Your task to perform on an android device: change timer sound Image 0: 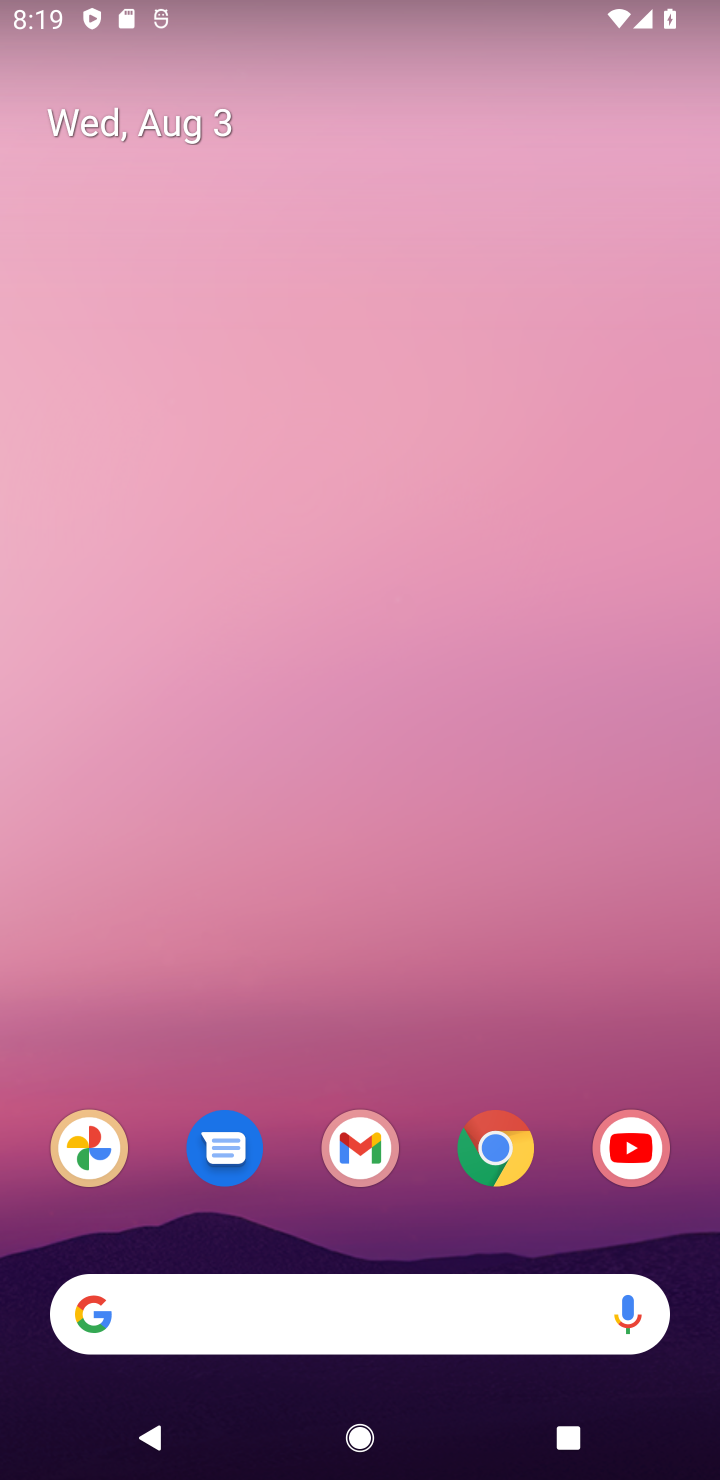
Step 0: drag from (416, 1006) to (497, 135)
Your task to perform on an android device: change timer sound Image 1: 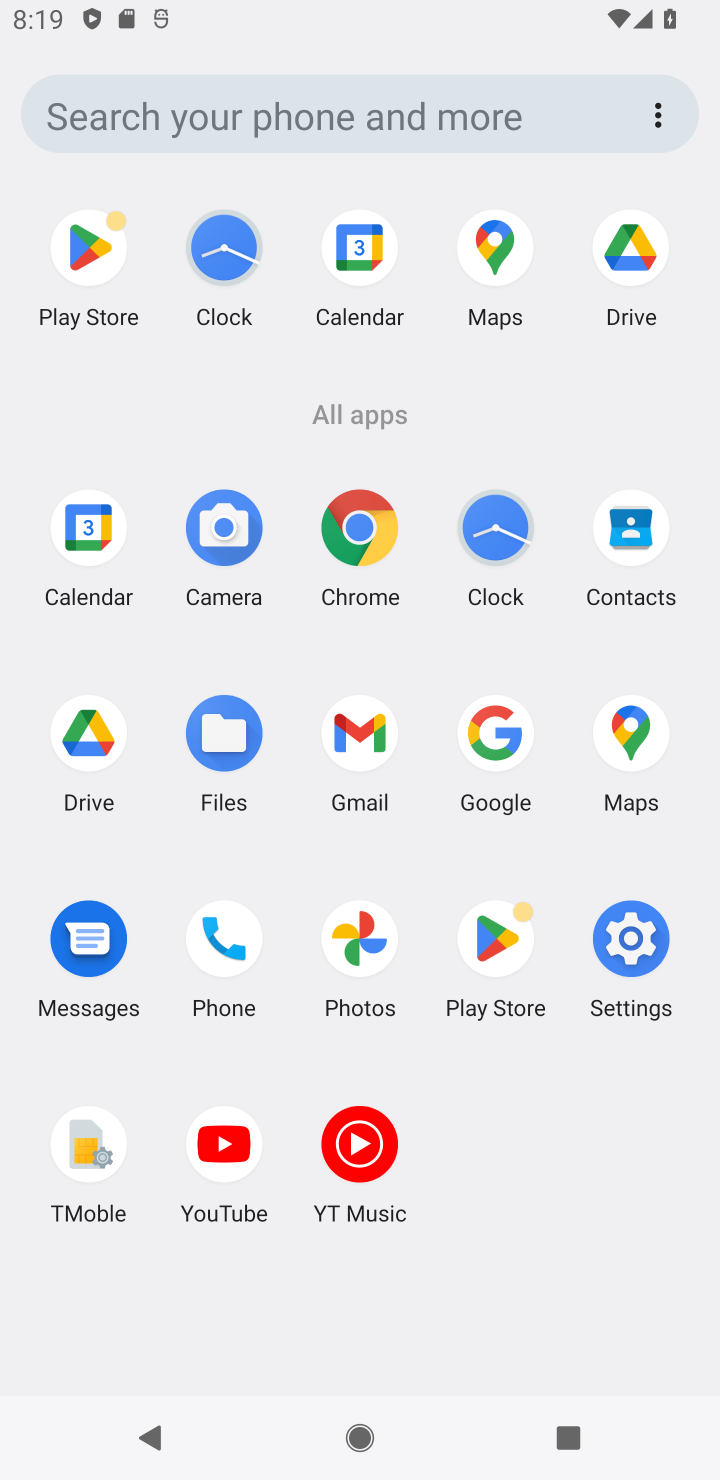
Step 1: click (212, 263)
Your task to perform on an android device: change timer sound Image 2: 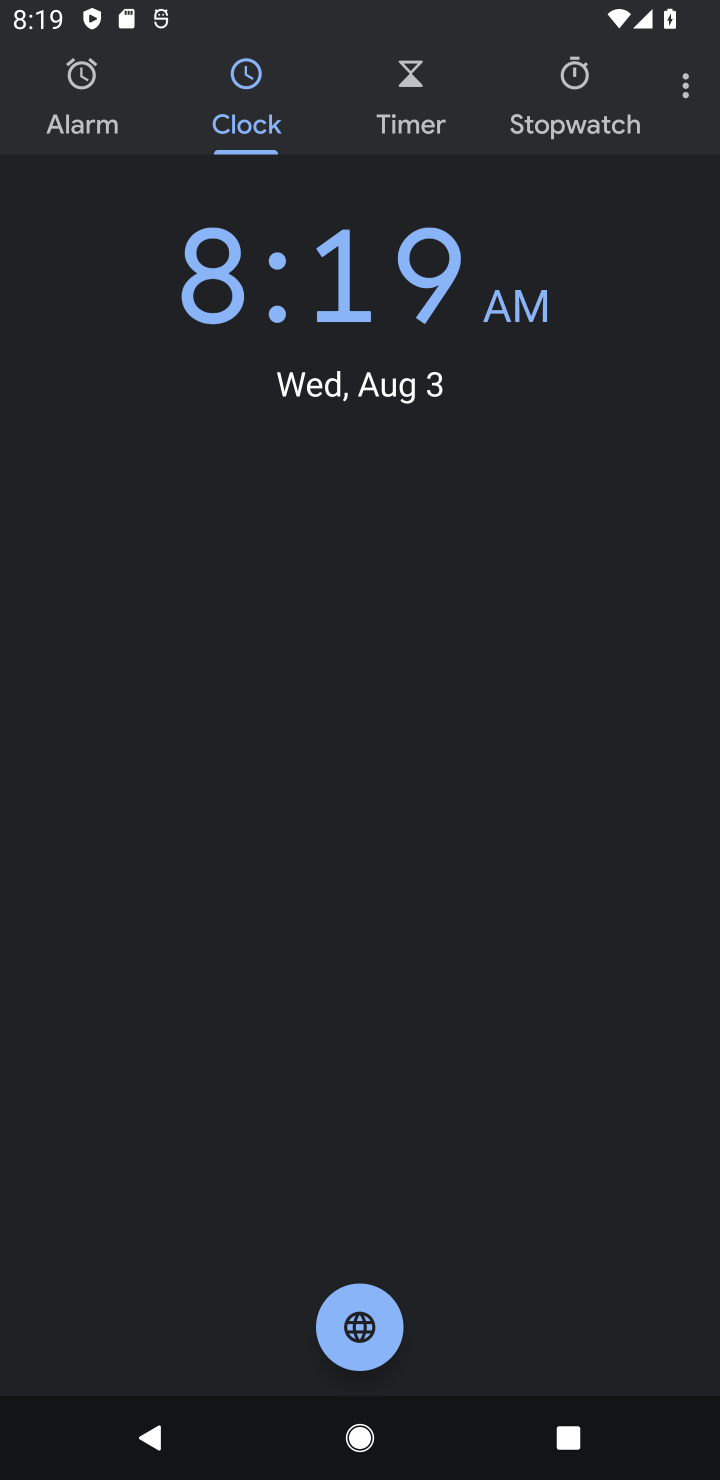
Step 2: click (424, 71)
Your task to perform on an android device: change timer sound Image 3: 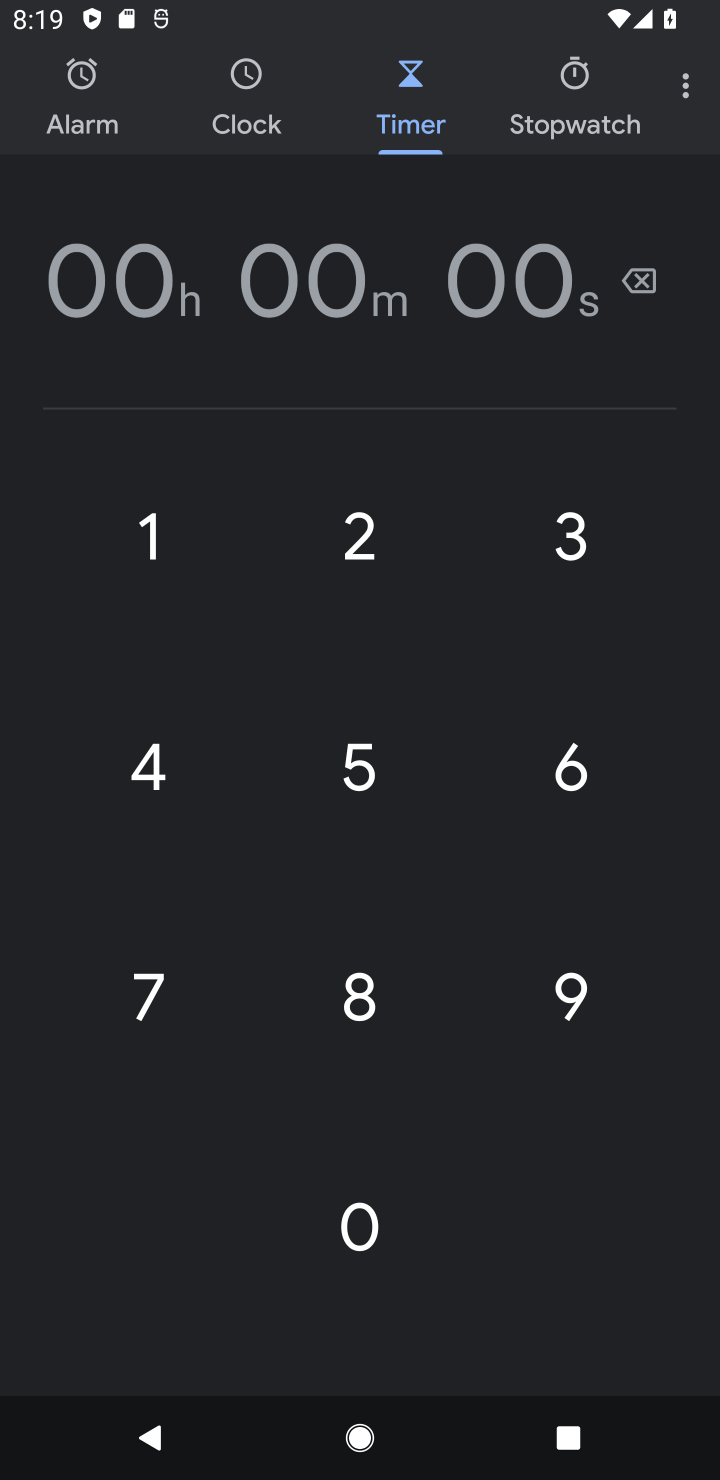
Step 3: click (688, 91)
Your task to perform on an android device: change timer sound Image 4: 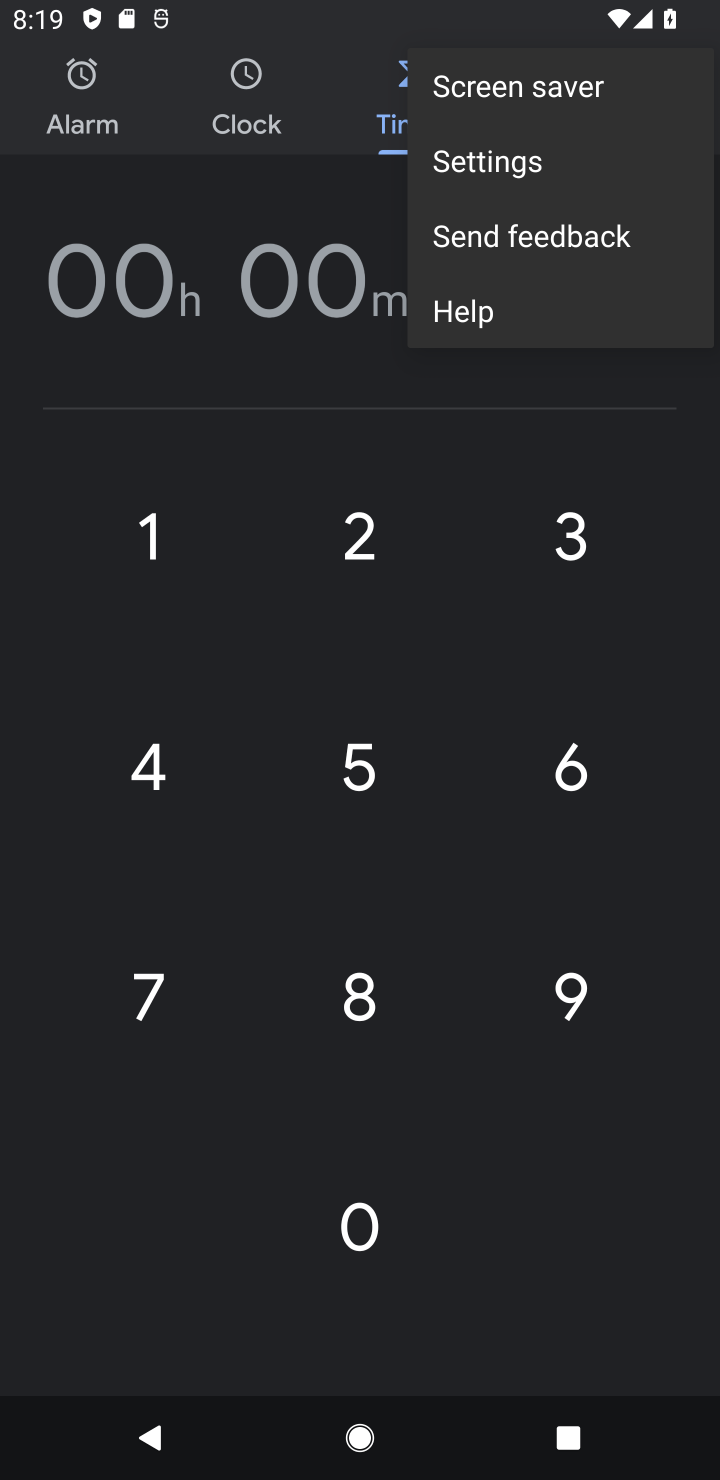
Step 4: click (559, 175)
Your task to perform on an android device: change timer sound Image 5: 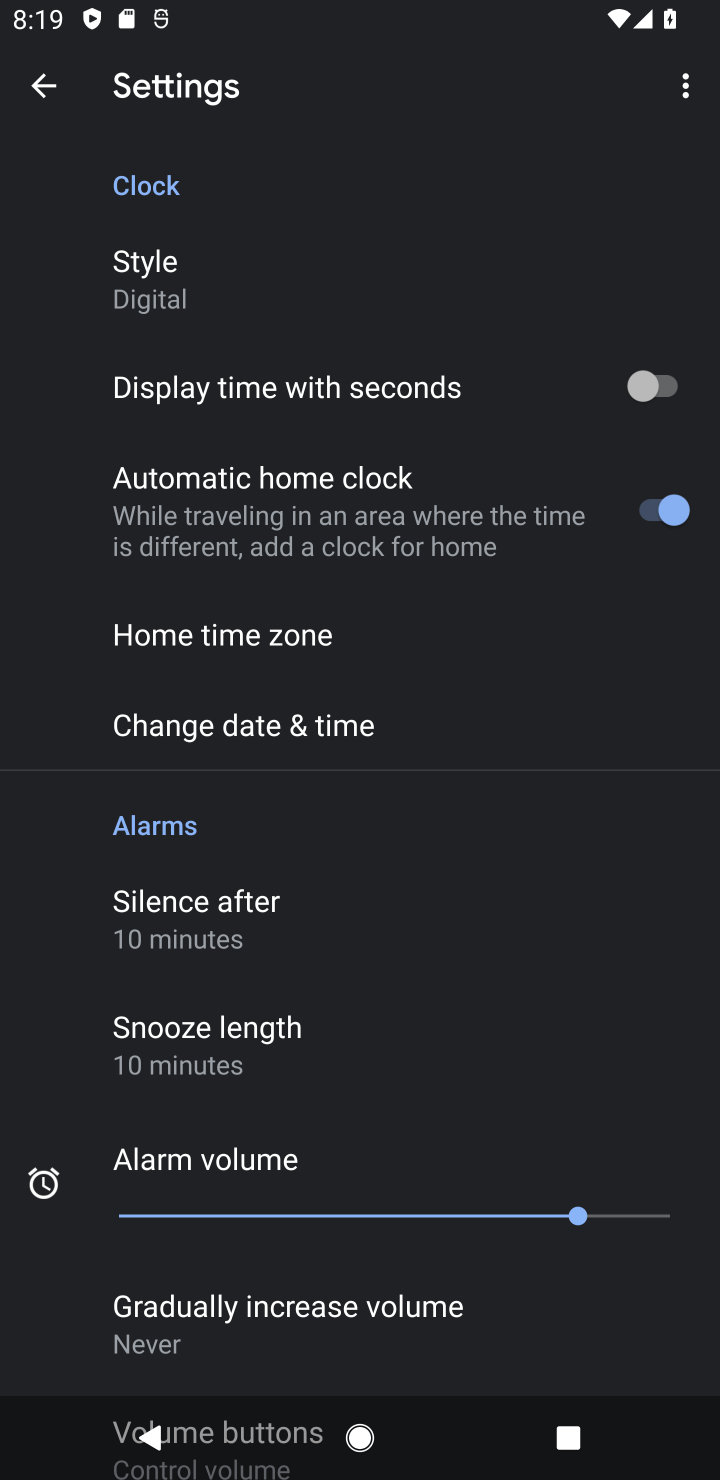
Step 5: drag from (355, 1023) to (439, 624)
Your task to perform on an android device: change timer sound Image 6: 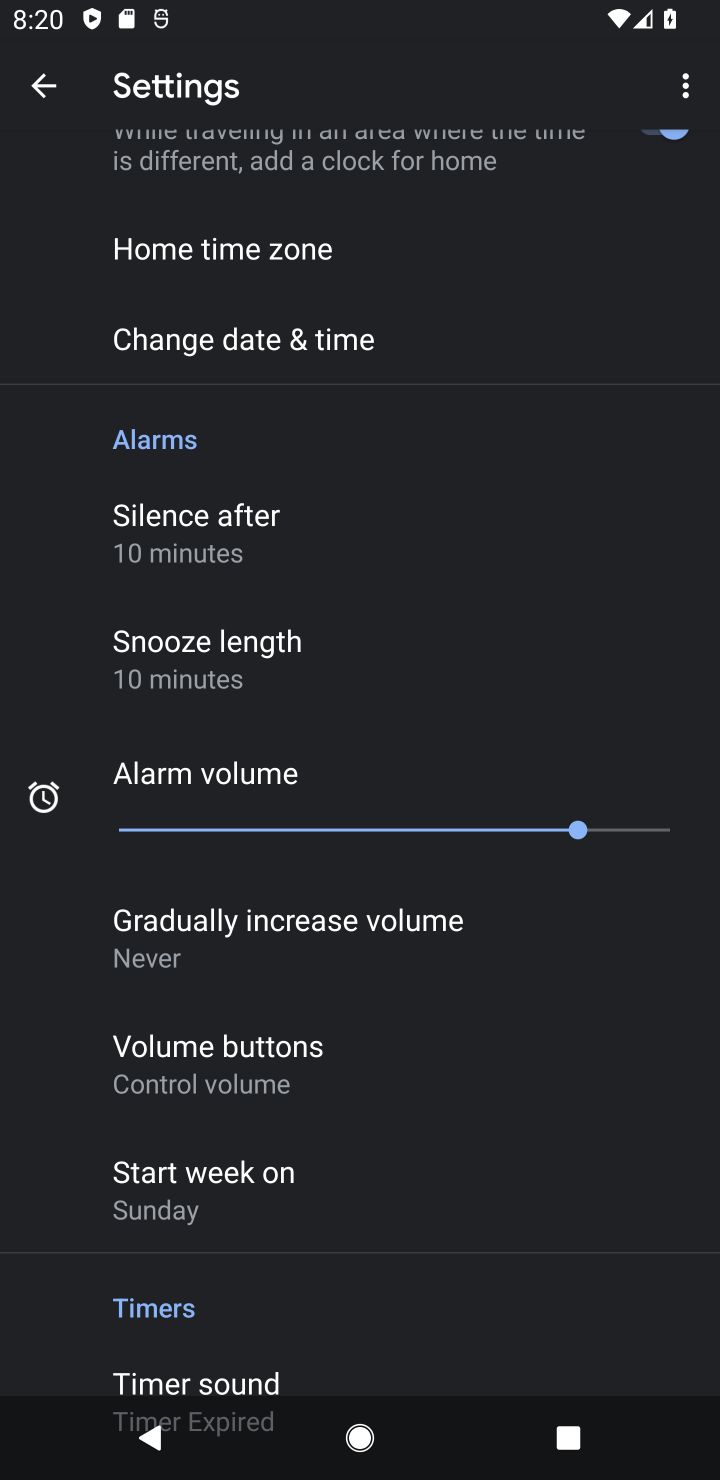
Step 6: click (254, 1382)
Your task to perform on an android device: change timer sound Image 7: 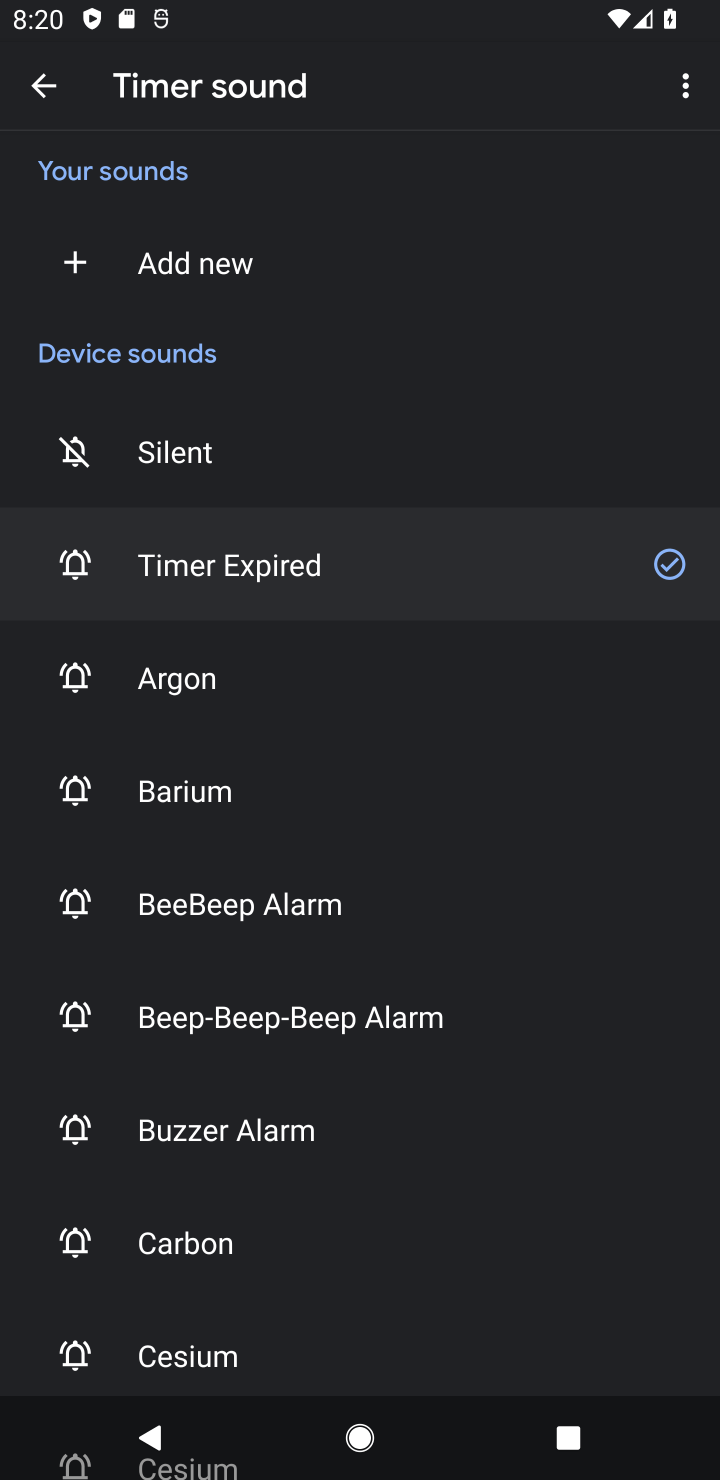
Step 7: click (196, 700)
Your task to perform on an android device: change timer sound Image 8: 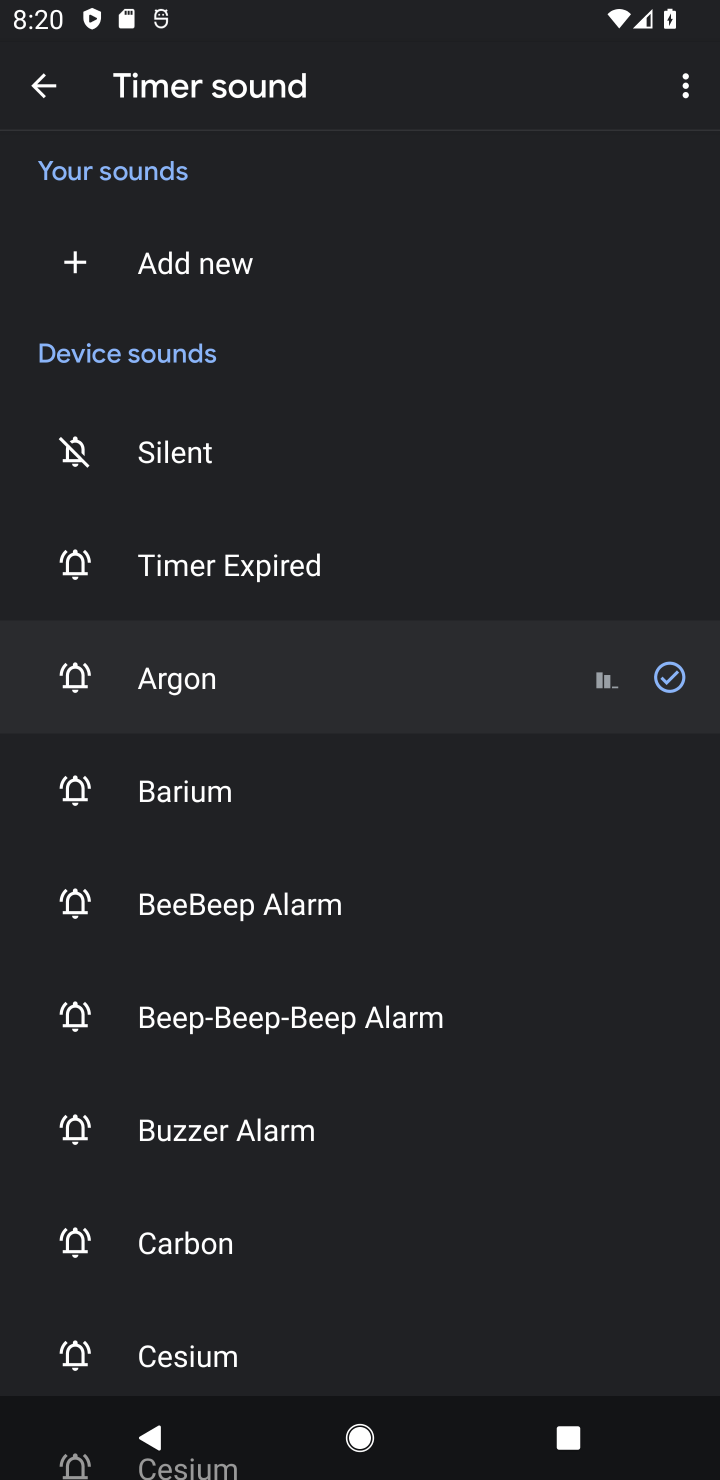
Step 8: task complete